Your task to perform on an android device: open chrome privacy settings Image 0: 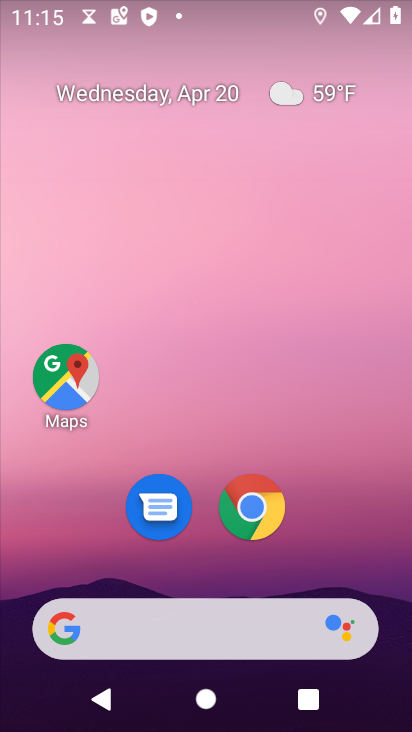
Step 0: drag from (256, 662) to (226, 183)
Your task to perform on an android device: open chrome privacy settings Image 1: 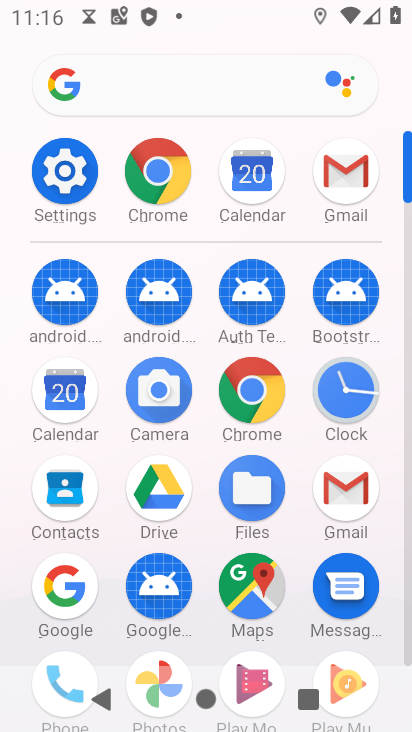
Step 1: click (78, 180)
Your task to perform on an android device: open chrome privacy settings Image 2: 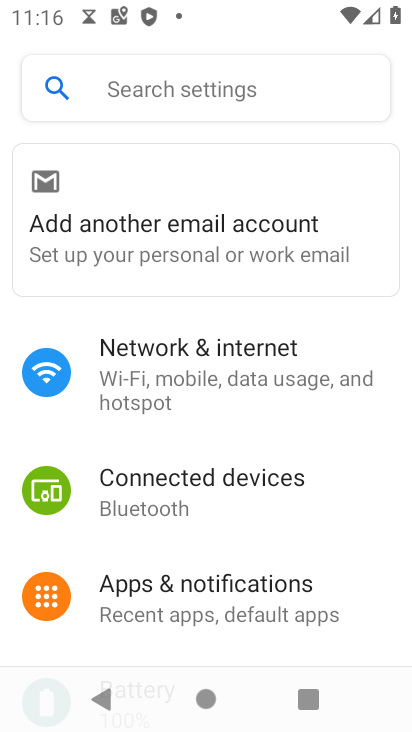
Step 2: drag from (221, 513) to (208, 383)
Your task to perform on an android device: open chrome privacy settings Image 3: 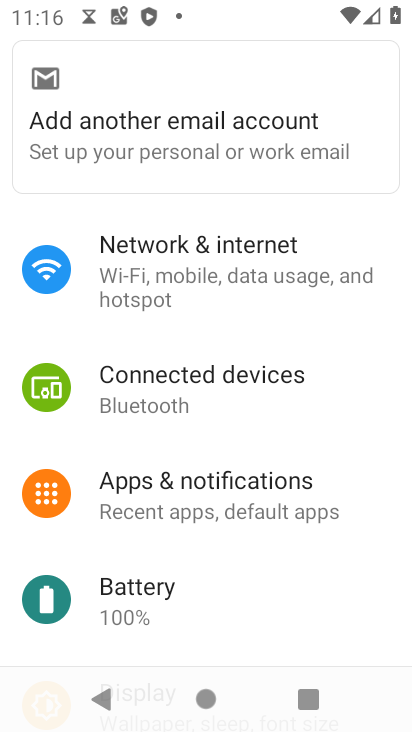
Step 3: drag from (230, 503) to (219, 335)
Your task to perform on an android device: open chrome privacy settings Image 4: 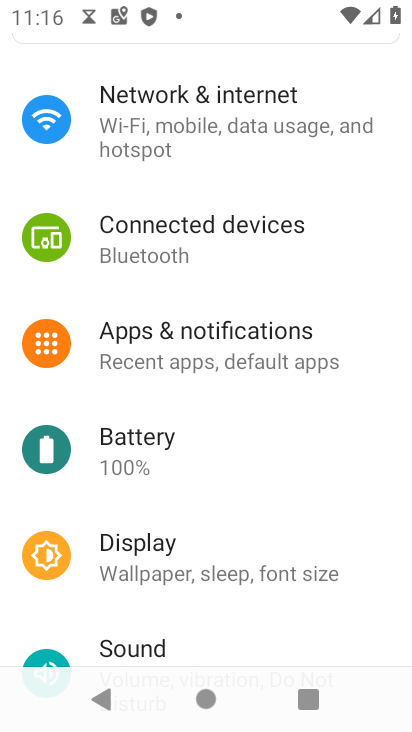
Step 4: drag from (163, 597) to (207, 397)
Your task to perform on an android device: open chrome privacy settings Image 5: 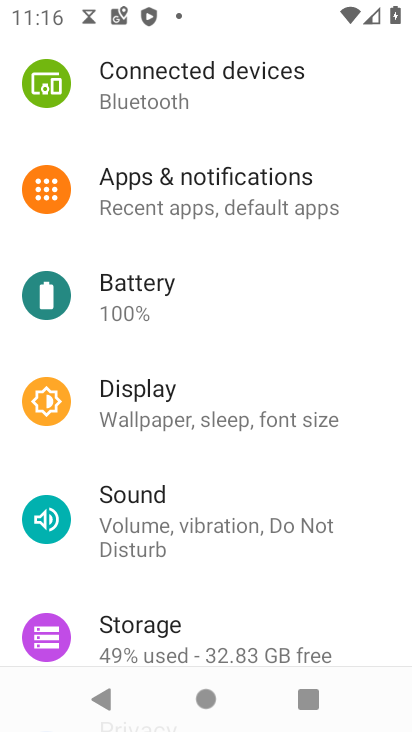
Step 5: drag from (191, 562) to (232, 349)
Your task to perform on an android device: open chrome privacy settings Image 6: 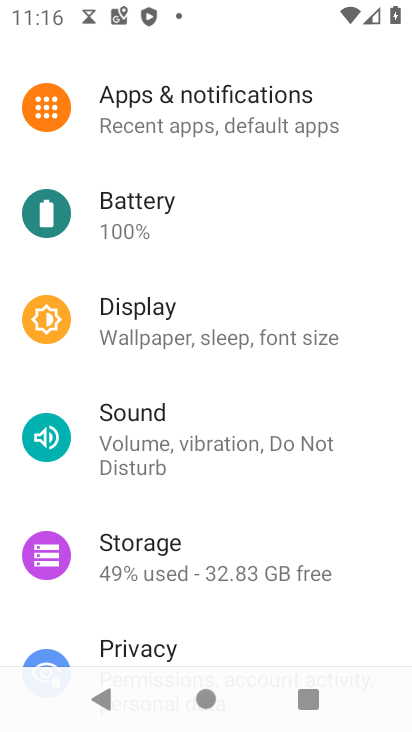
Step 6: drag from (177, 592) to (189, 496)
Your task to perform on an android device: open chrome privacy settings Image 7: 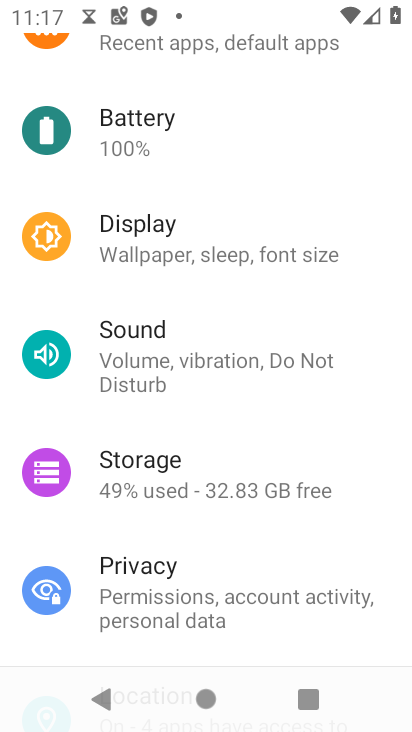
Step 7: click (147, 570)
Your task to perform on an android device: open chrome privacy settings Image 8: 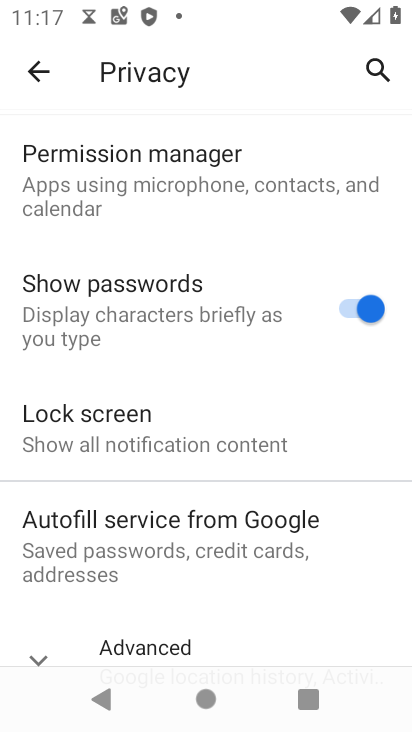
Step 8: task complete